Your task to perform on an android device: change your default location settings in chrome Image 0: 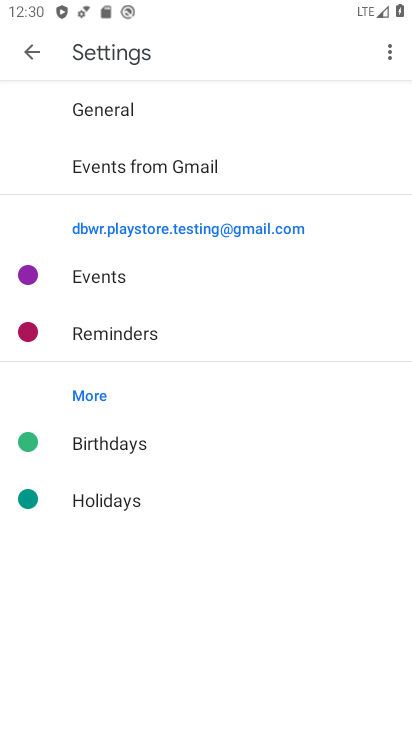
Step 0: press home button
Your task to perform on an android device: change your default location settings in chrome Image 1: 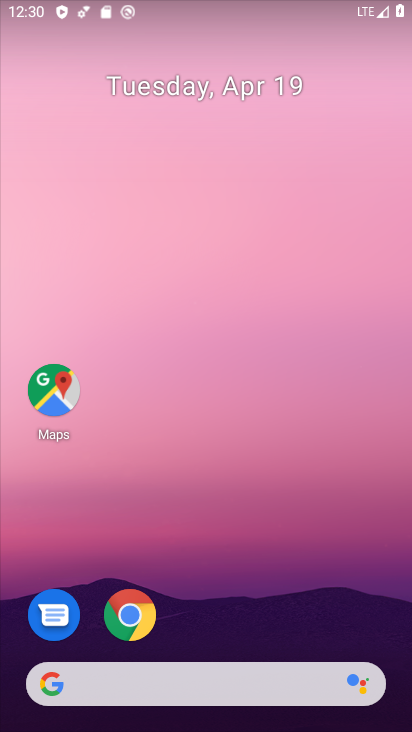
Step 1: drag from (312, 612) to (299, 53)
Your task to perform on an android device: change your default location settings in chrome Image 2: 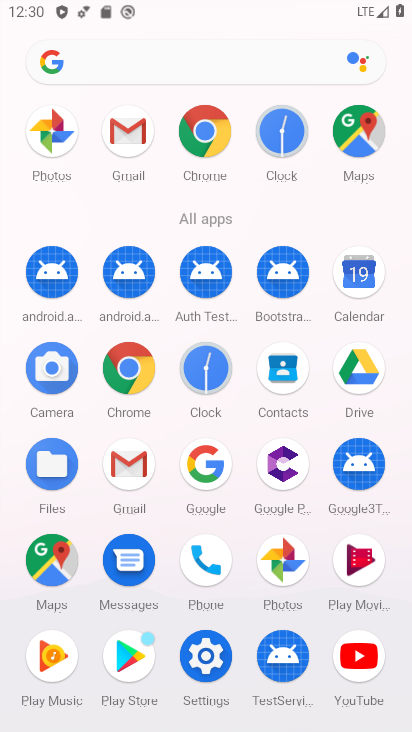
Step 2: click (137, 364)
Your task to perform on an android device: change your default location settings in chrome Image 3: 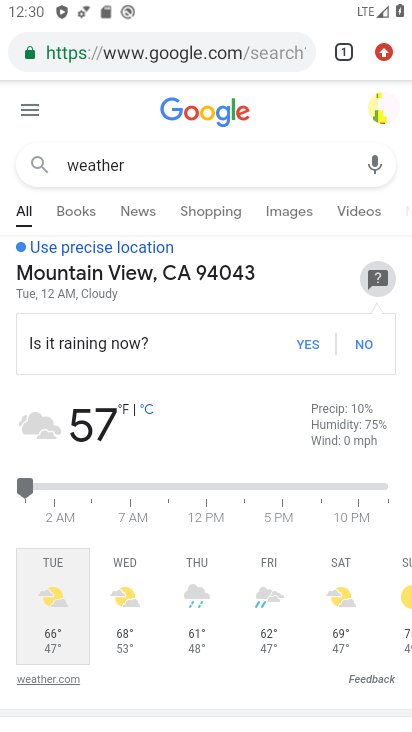
Step 3: drag from (383, 49) to (234, 644)
Your task to perform on an android device: change your default location settings in chrome Image 4: 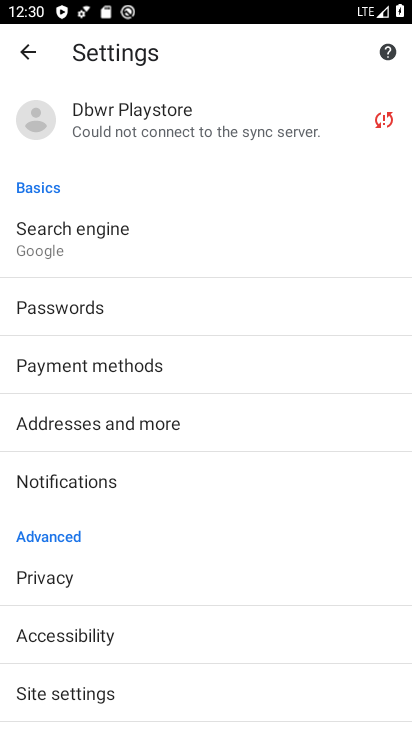
Step 4: drag from (245, 670) to (313, 231)
Your task to perform on an android device: change your default location settings in chrome Image 5: 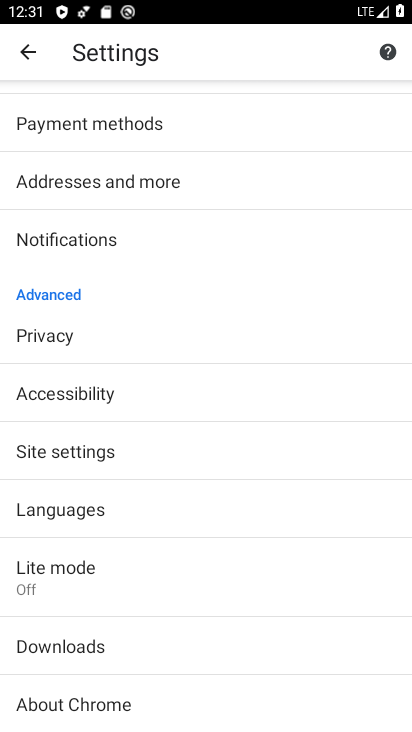
Step 5: click (84, 446)
Your task to perform on an android device: change your default location settings in chrome Image 6: 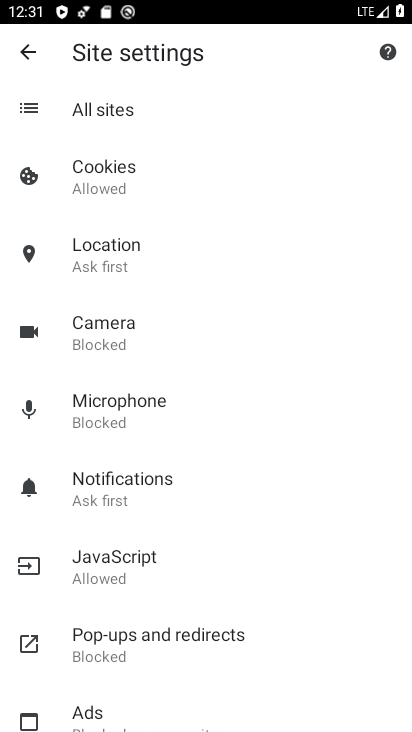
Step 6: click (107, 268)
Your task to perform on an android device: change your default location settings in chrome Image 7: 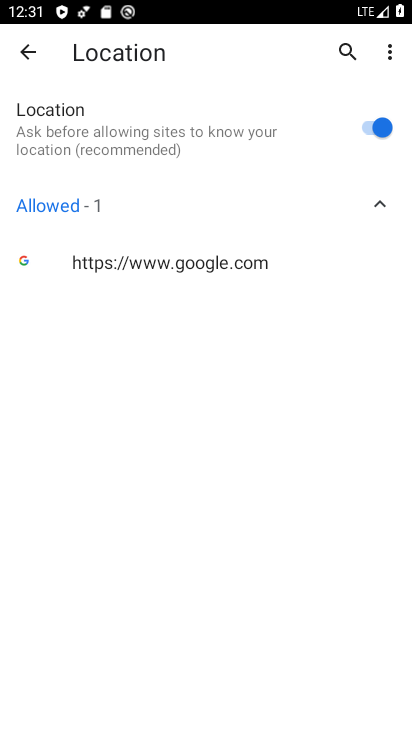
Step 7: click (369, 125)
Your task to perform on an android device: change your default location settings in chrome Image 8: 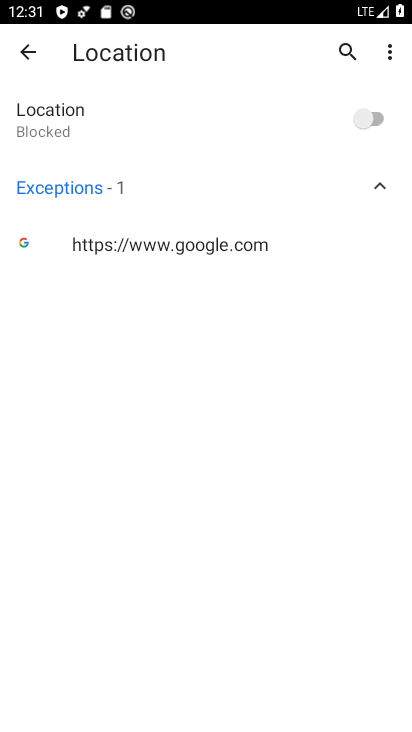
Step 8: task complete